Your task to perform on an android device: find which apps use the phone's location Image 0: 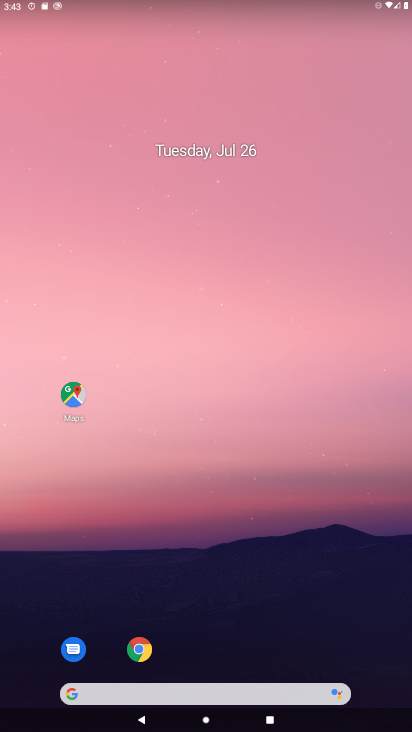
Step 0: drag from (347, 652) to (172, 63)
Your task to perform on an android device: find which apps use the phone's location Image 1: 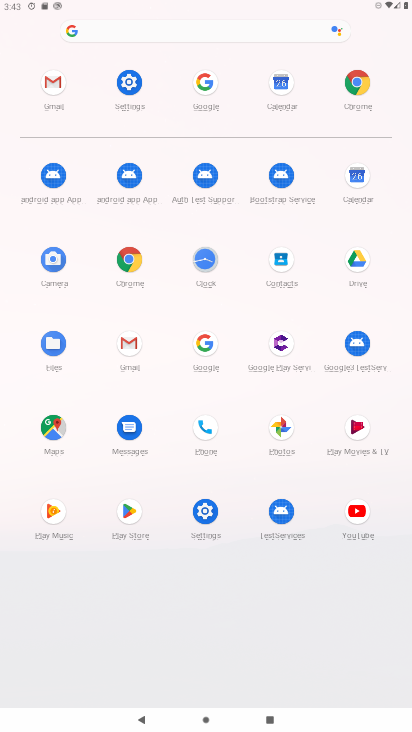
Step 1: click (213, 505)
Your task to perform on an android device: find which apps use the phone's location Image 2: 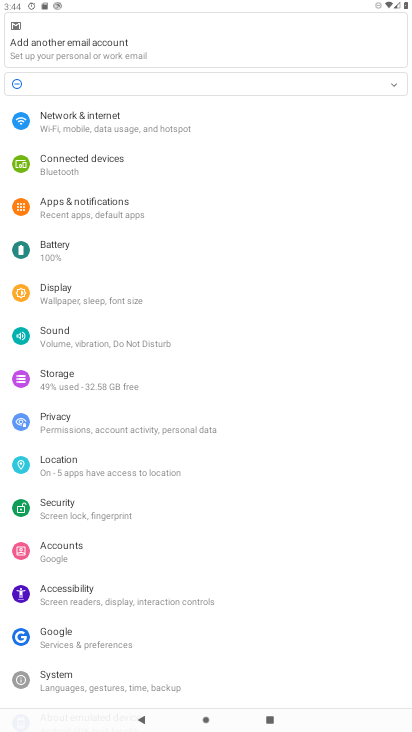
Step 2: click (76, 457)
Your task to perform on an android device: find which apps use the phone's location Image 3: 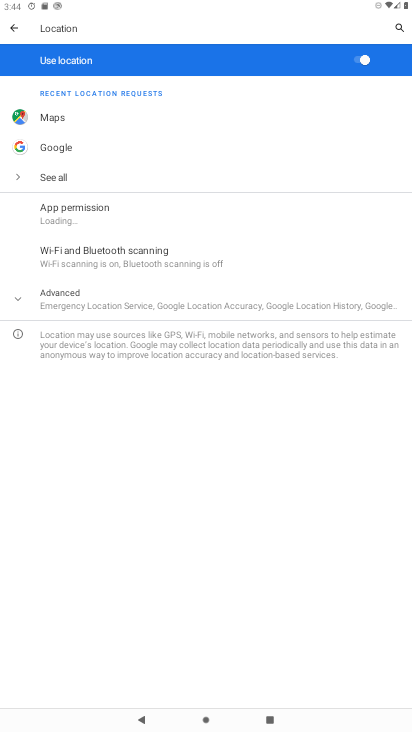
Step 3: click (94, 227)
Your task to perform on an android device: find which apps use the phone's location Image 4: 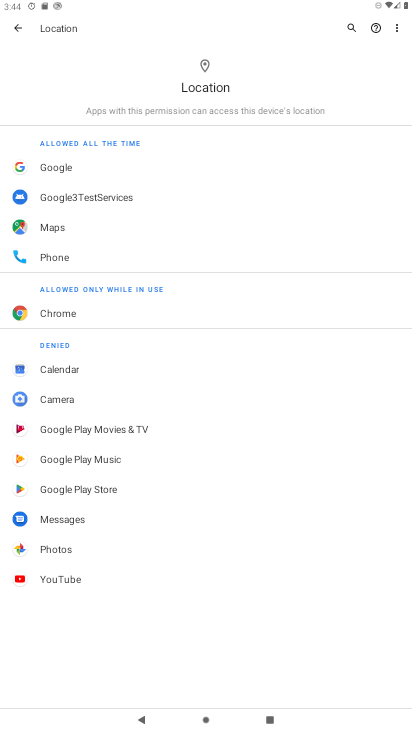
Step 4: click (68, 262)
Your task to perform on an android device: find which apps use the phone's location Image 5: 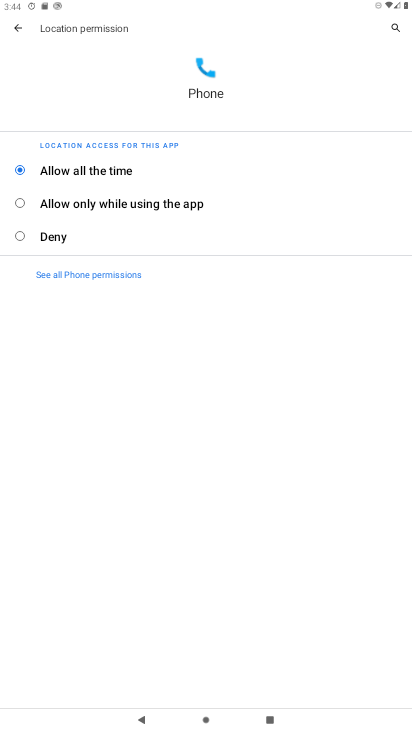
Step 5: task complete